Your task to perform on an android device: Open Maps and search for coffee Image 0: 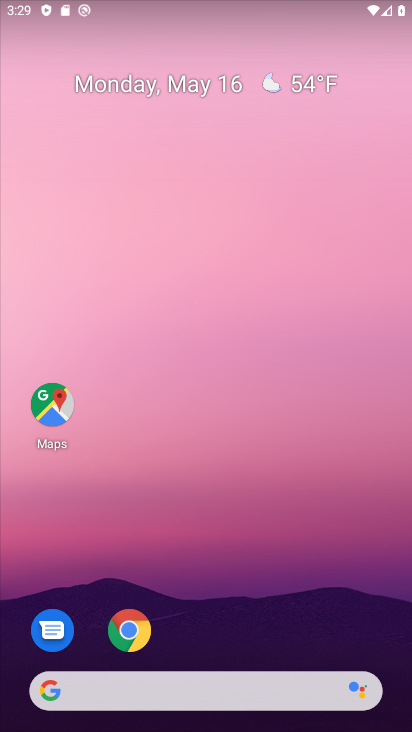
Step 0: drag from (217, 631) to (206, 137)
Your task to perform on an android device: Open Maps and search for coffee Image 1: 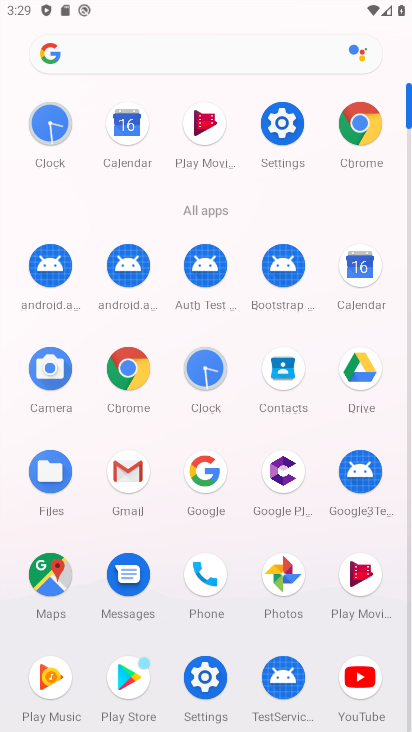
Step 1: click (53, 576)
Your task to perform on an android device: Open Maps and search for coffee Image 2: 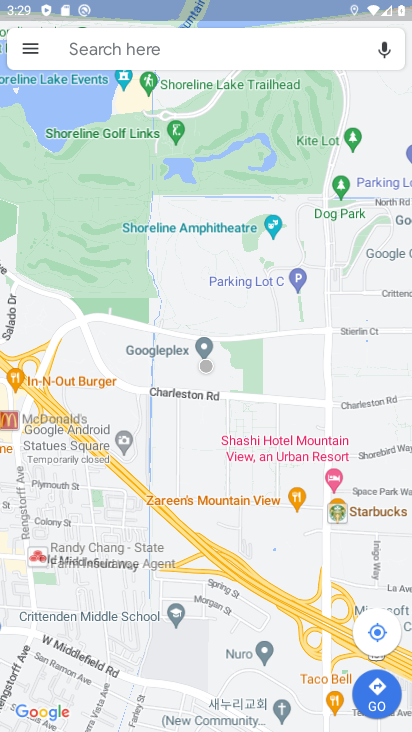
Step 2: click (178, 48)
Your task to perform on an android device: Open Maps and search for coffee Image 3: 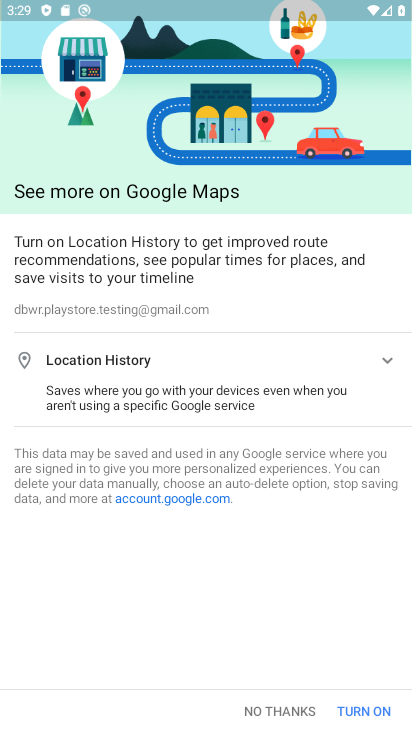
Step 3: click (299, 703)
Your task to perform on an android device: Open Maps and search for coffee Image 4: 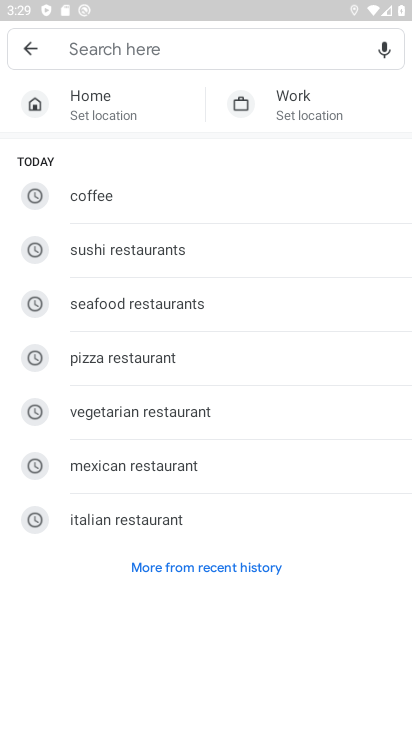
Step 4: click (186, 190)
Your task to perform on an android device: Open Maps and search for coffee Image 5: 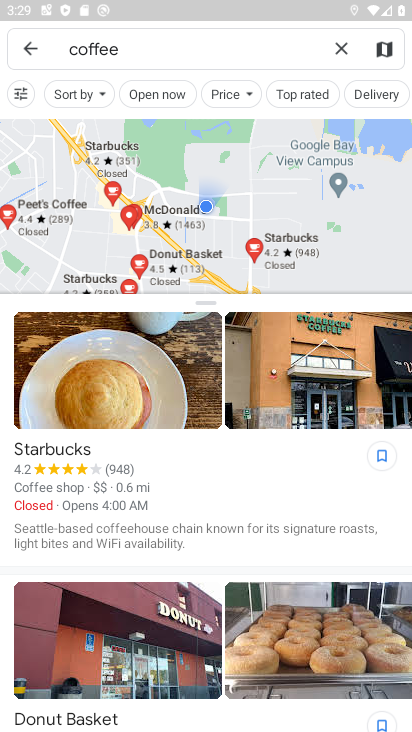
Step 5: task complete